Your task to perform on an android device: turn on showing notifications on the lock screen Image 0: 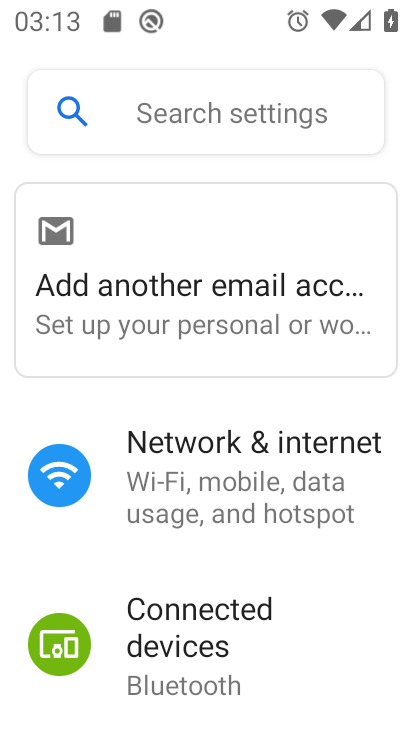
Step 0: press home button
Your task to perform on an android device: turn on showing notifications on the lock screen Image 1: 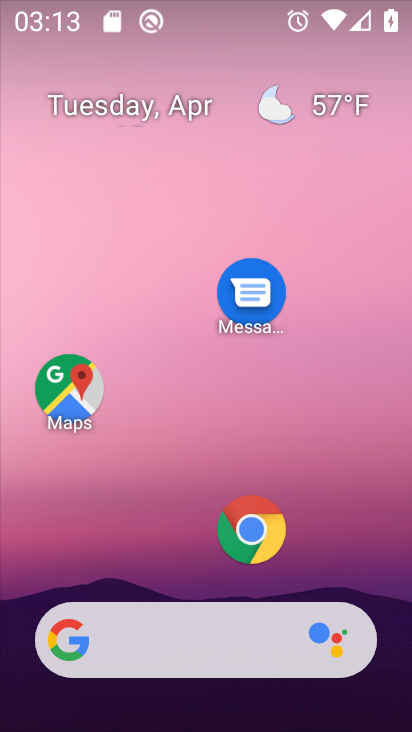
Step 1: drag from (152, 553) to (120, 190)
Your task to perform on an android device: turn on showing notifications on the lock screen Image 2: 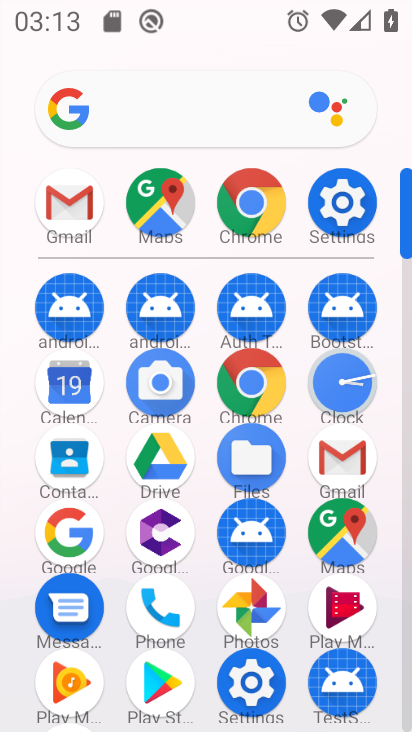
Step 2: click (342, 202)
Your task to perform on an android device: turn on showing notifications on the lock screen Image 3: 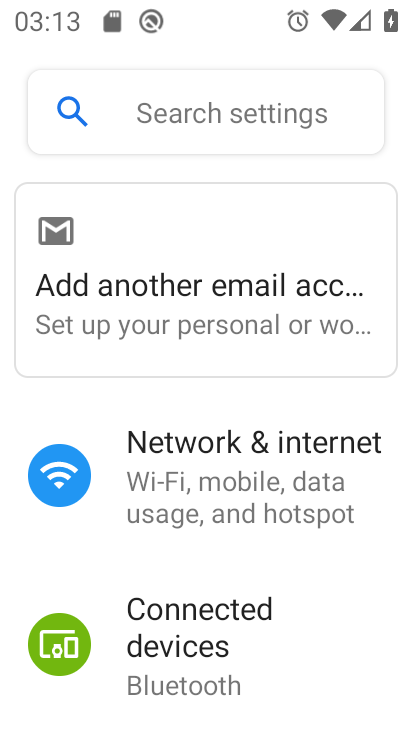
Step 3: drag from (298, 639) to (273, 151)
Your task to perform on an android device: turn on showing notifications on the lock screen Image 4: 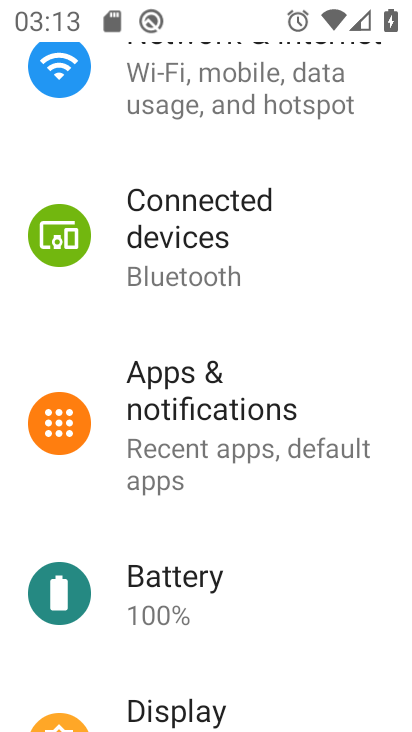
Step 4: click (204, 401)
Your task to perform on an android device: turn on showing notifications on the lock screen Image 5: 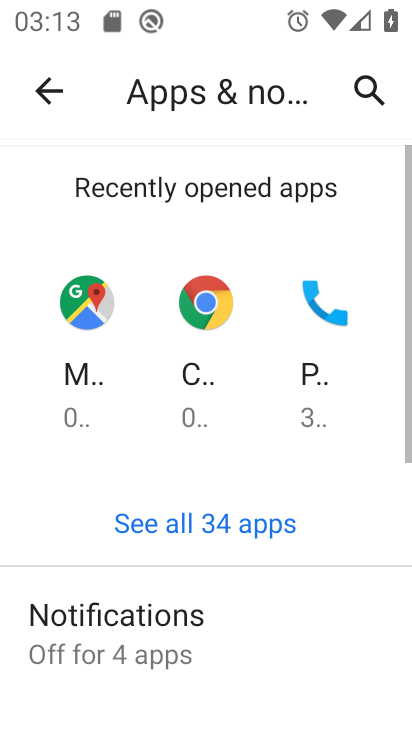
Step 5: click (162, 634)
Your task to perform on an android device: turn on showing notifications on the lock screen Image 6: 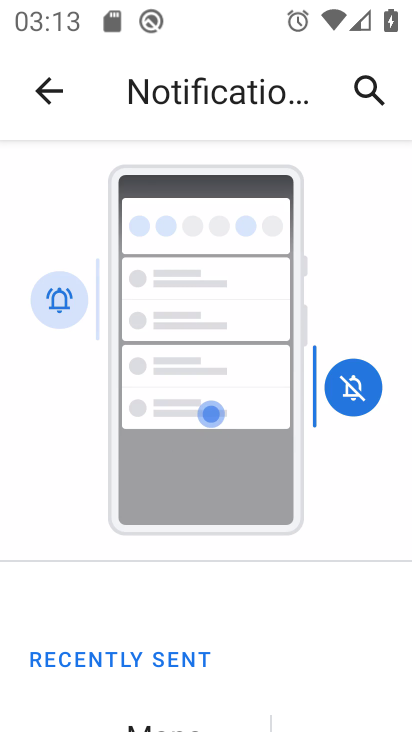
Step 6: drag from (308, 629) to (274, 239)
Your task to perform on an android device: turn on showing notifications on the lock screen Image 7: 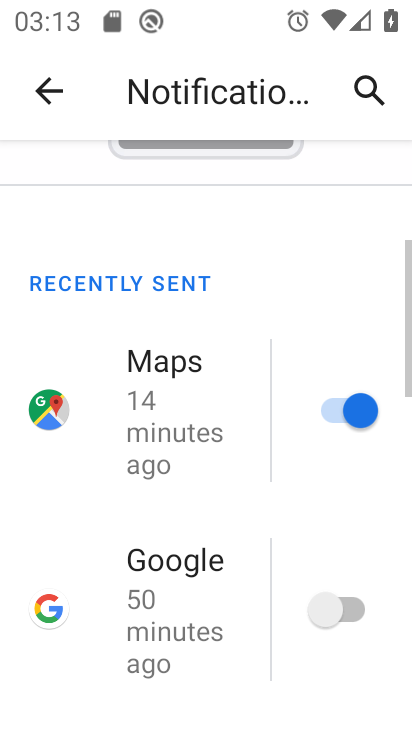
Step 7: drag from (274, 661) to (271, 232)
Your task to perform on an android device: turn on showing notifications on the lock screen Image 8: 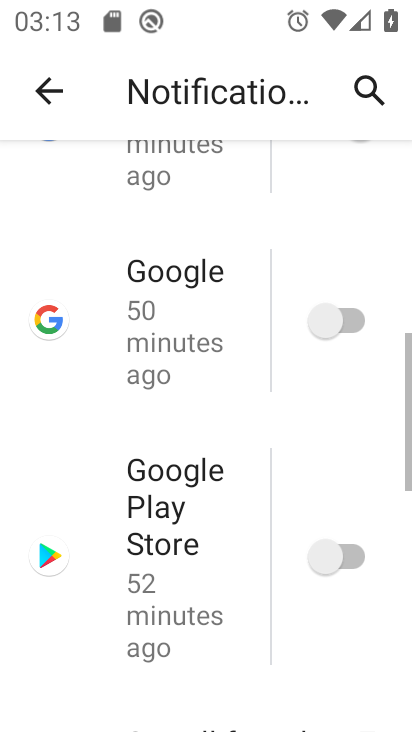
Step 8: drag from (233, 673) to (214, 164)
Your task to perform on an android device: turn on showing notifications on the lock screen Image 9: 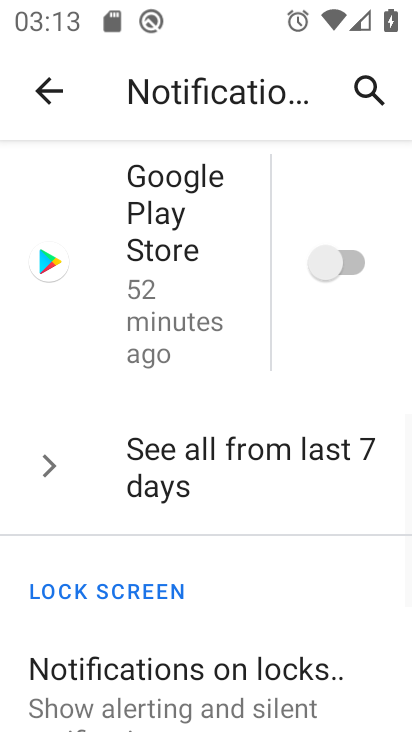
Step 9: click (171, 689)
Your task to perform on an android device: turn on showing notifications on the lock screen Image 10: 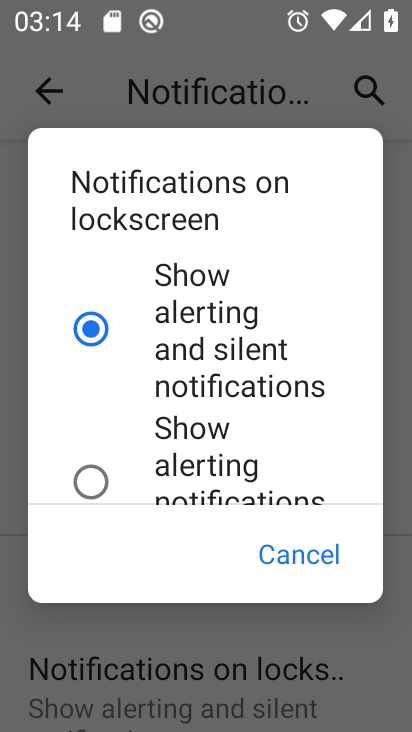
Step 10: task complete